Your task to perform on an android device: Look up the best rated book on Goodreads Image 0: 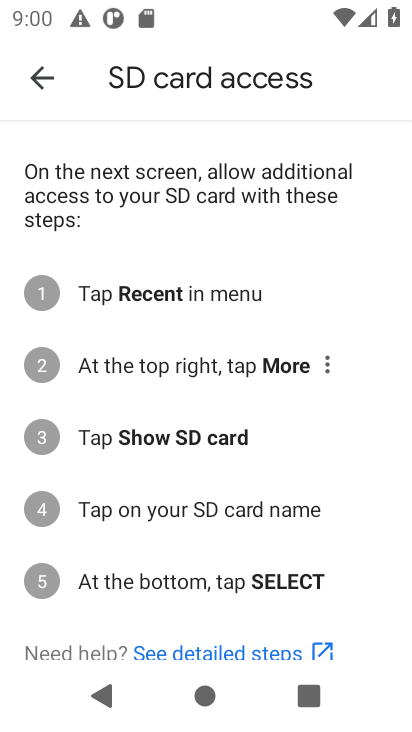
Step 0: task complete